Your task to perform on an android device: turn off location Image 0: 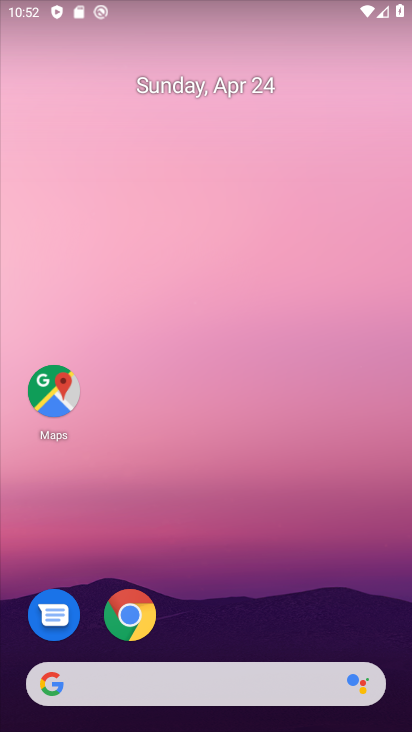
Step 0: drag from (251, 614) to (288, 108)
Your task to perform on an android device: turn off location Image 1: 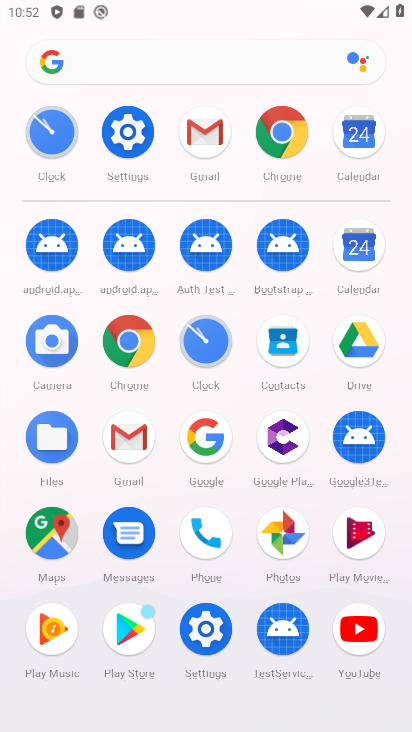
Step 1: click (198, 631)
Your task to perform on an android device: turn off location Image 2: 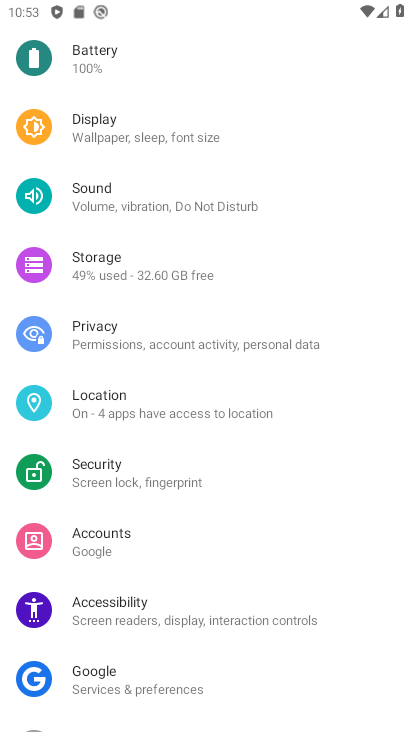
Step 2: click (135, 400)
Your task to perform on an android device: turn off location Image 3: 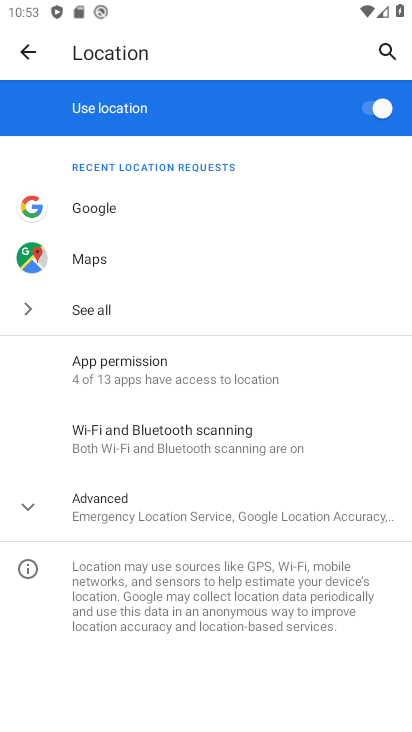
Step 3: click (373, 102)
Your task to perform on an android device: turn off location Image 4: 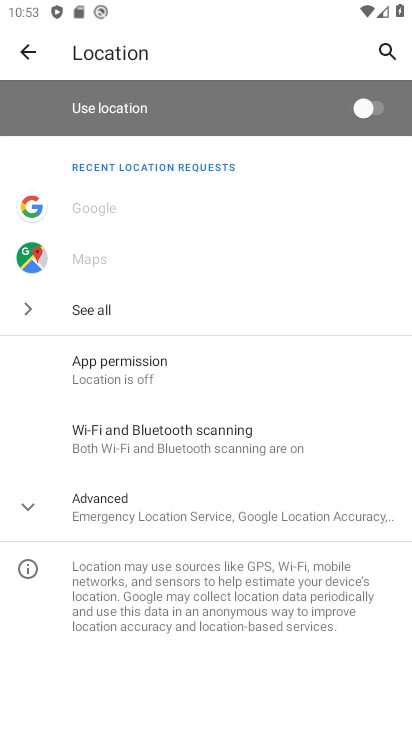
Step 4: task complete